Your task to perform on an android device: manage bookmarks in the chrome app Image 0: 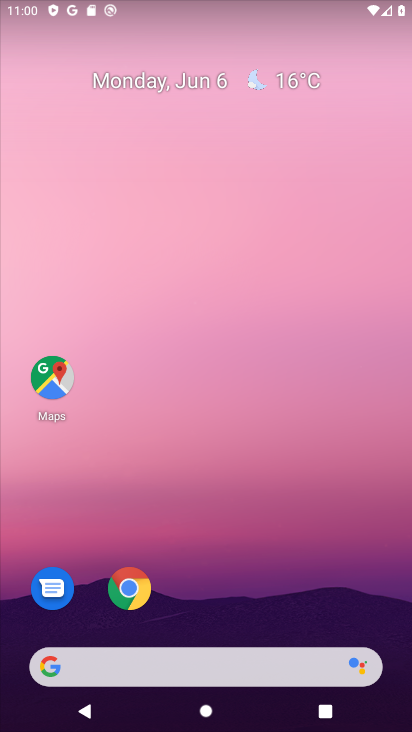
Step 0: click (135, 585)
Your task to perform on an android device: manage bookmarks in the chrome app Image 1: 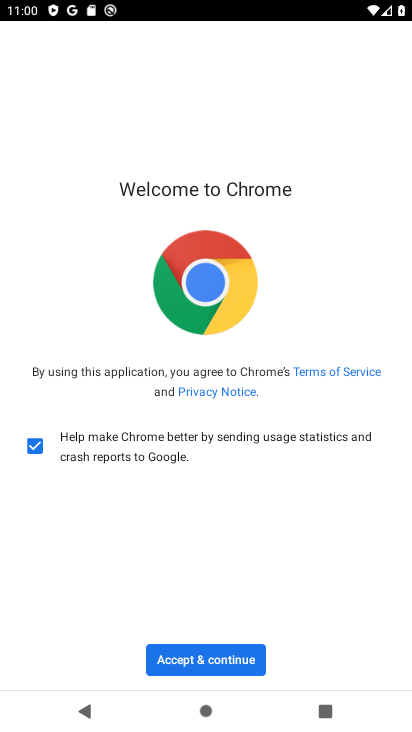
Step 1: press home button
Your task to perform on an android device: manage bookmarks in the chrome app Image 2: 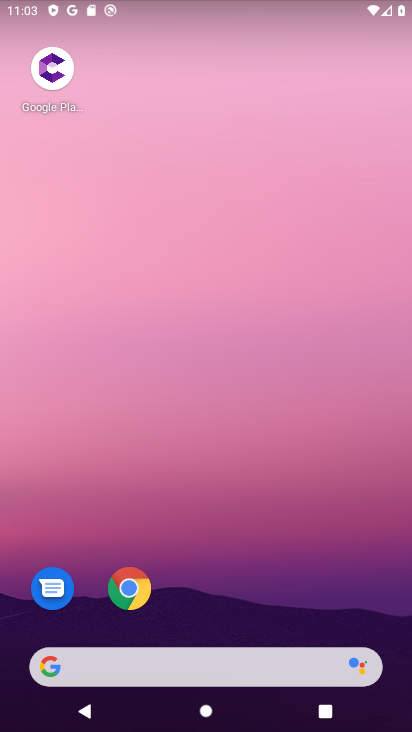
Step 2: drag from (248, 602) to (259, 486)
Your task to perform on an android device: manage bookmarks in the chrome app Image 3: 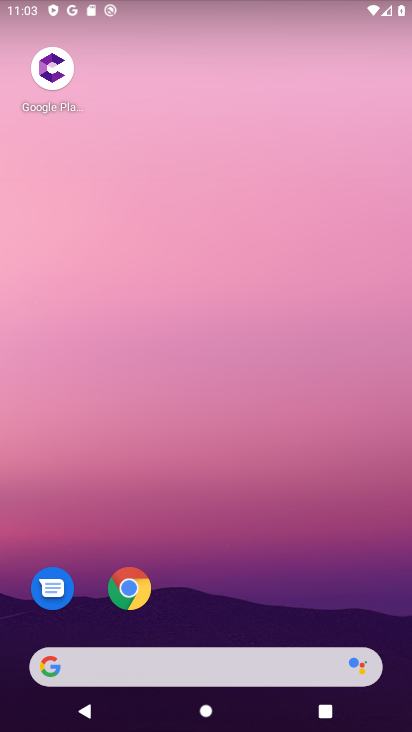
Step 3: click (117, 586)
Your task to perform on an android device: manage bookmarks in the chrome app Image 4: 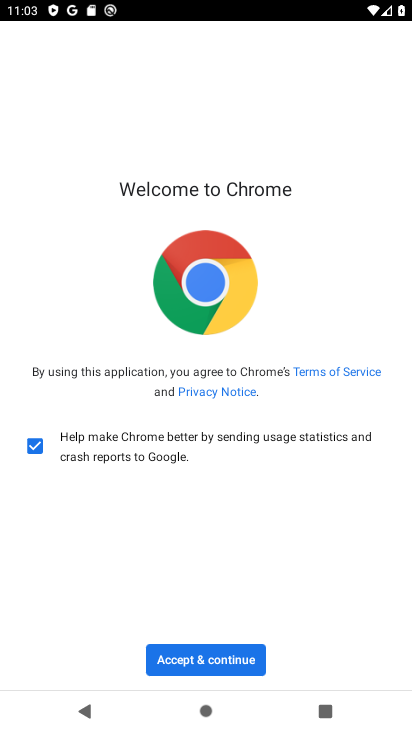
Step 4: click (185, 657)
Your task to perform on an android device: manage bookmarks in the chrome app Image 5: 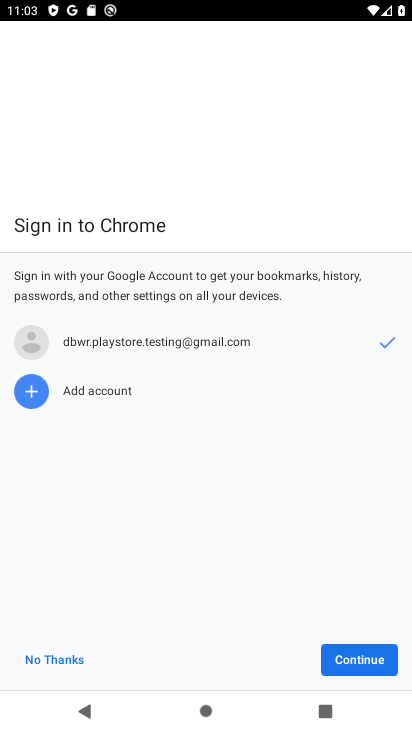
Step 5: click (356, 659)
Your task to perform on an android device: manage bookmarks in the chrome app Image 6: 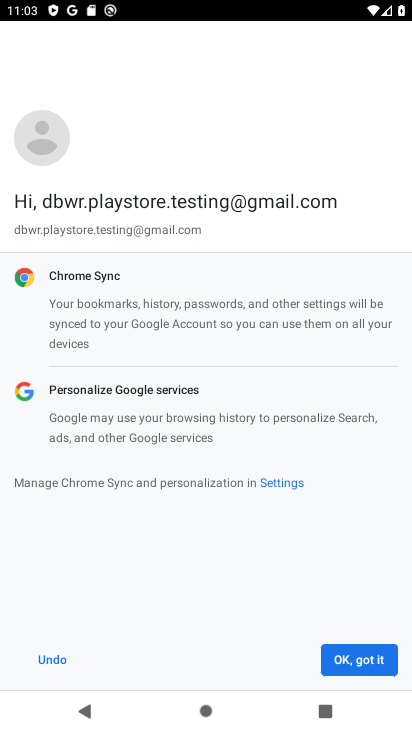
Step 6: click (356, 659)
Your task to perform on an android device: manage bookmarks in the chrome app Image 7: 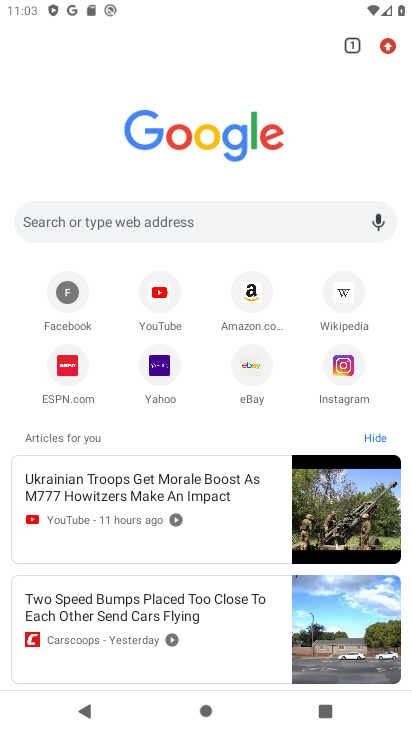
Step 7: click (380, 46)
Your task to perform on an android device: manage bookmarks in the chrome app Image 8: 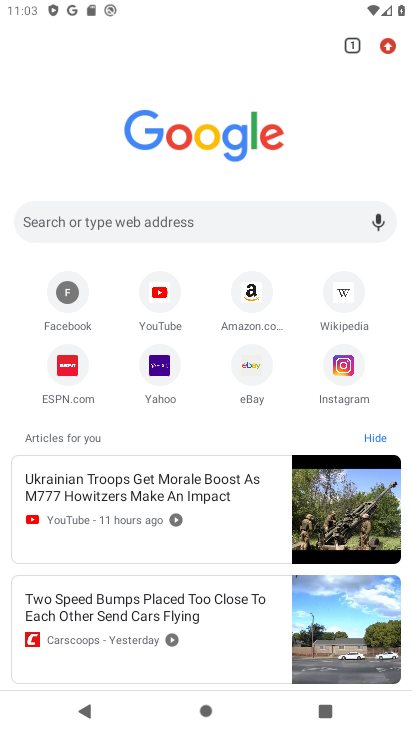
Step 8: click (380, 46)
Your task to perform on an android device: manage bookmarks in the chrome app Image 9: 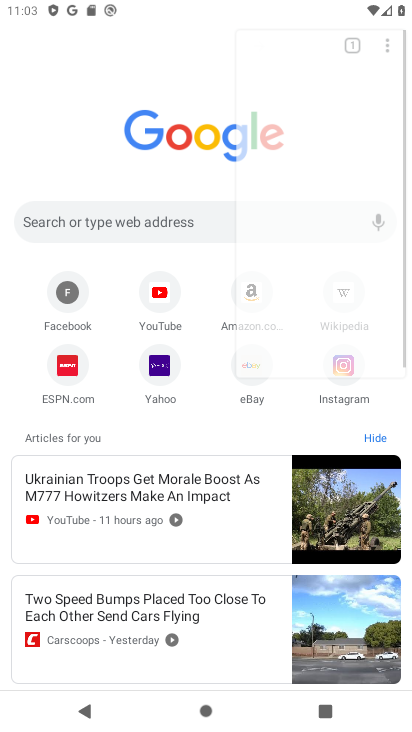
Step 9: click (380, 46)
Your task to perform on an android device: manage bookmarks in the chrome app Image 10: 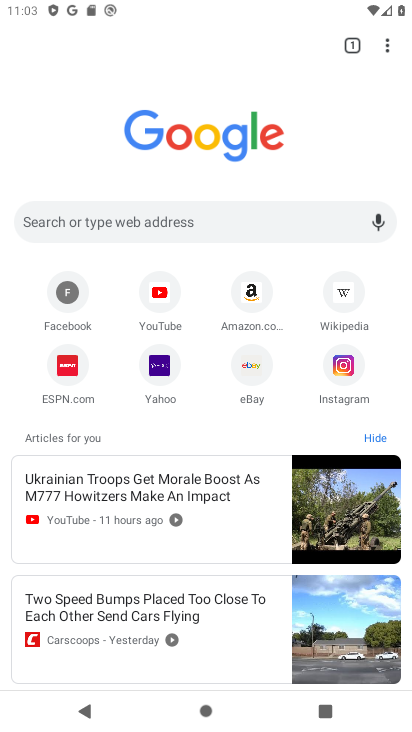
Step 10: click (386, 44)
Your task to perform on an android device: manage bookmarks in the chrome app Image 11: 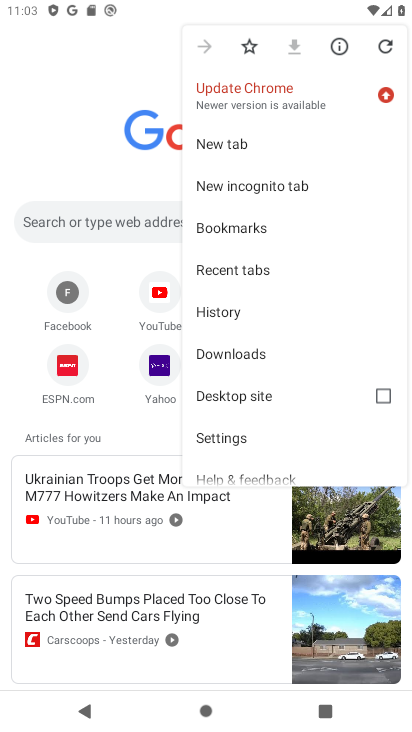
Step 11: click (241, 234)
Your task to perform on an android device: manage bookmarks in the chrome app Image 12: 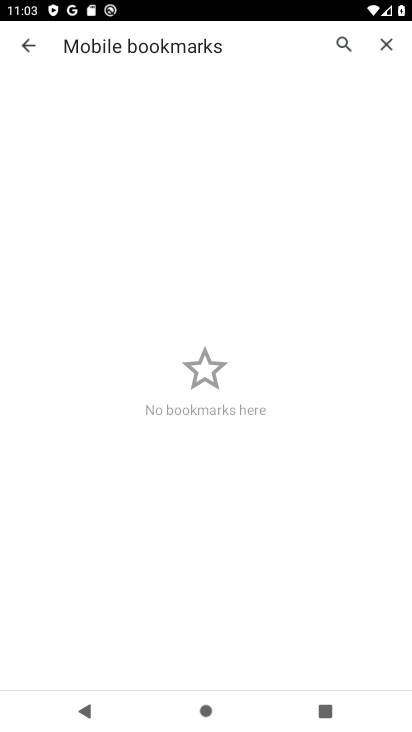
Step 12: task complete